Your task to perform on an android device: open a new tab in the chrome app Image 0: 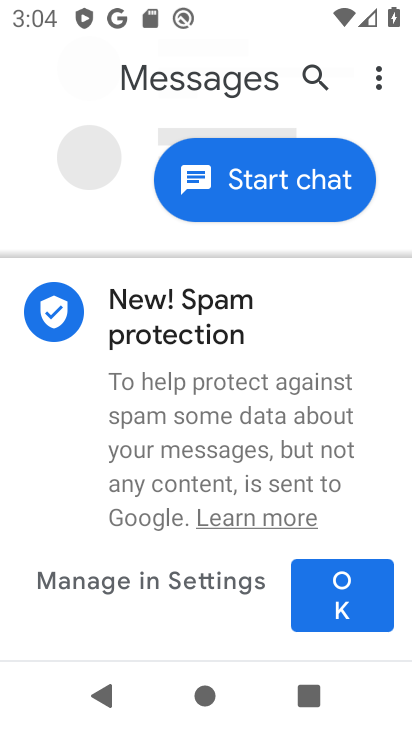
Step 0: press back button
Your task to perform on an android device: open a new tab in the chrome app Image 1: 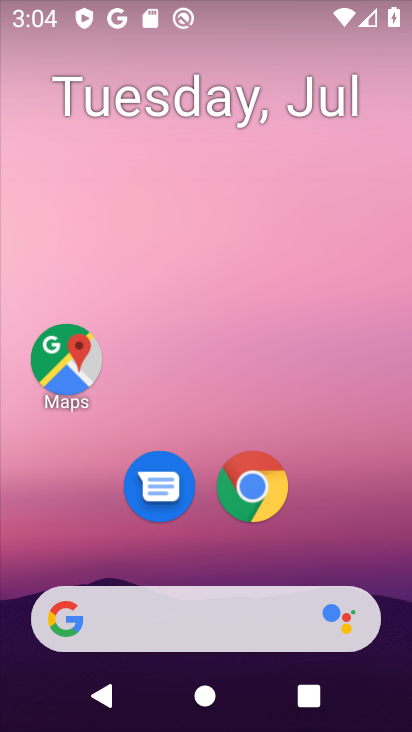
Step 1: drag from (73, 525) to (186, 124)
Your task to perform on an android device: open a new tab in the chrome app Image 2: 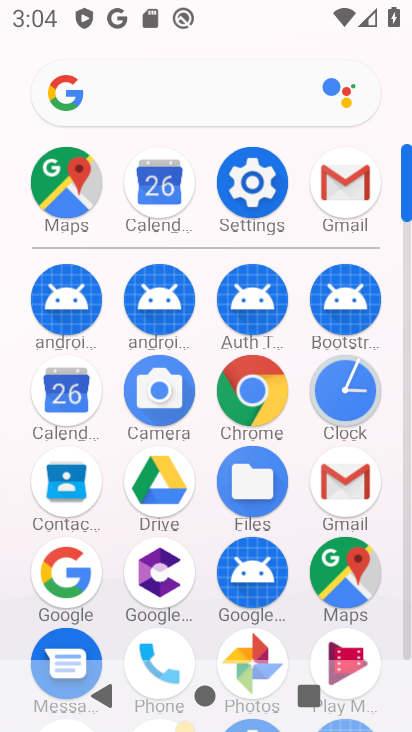
Step 2: click (270, 382)
Your task to perform on an android device: open a new tab in the chrome app Image 3: 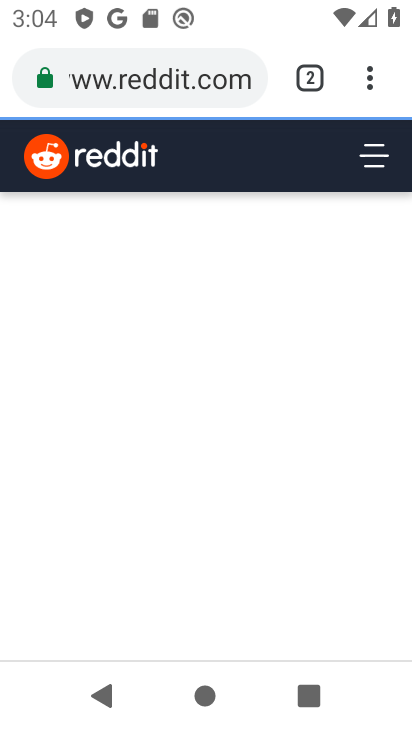
Step 3: click (313, 81)
Your task to perform on an android device: open a new tab in the chrome app Image 4: 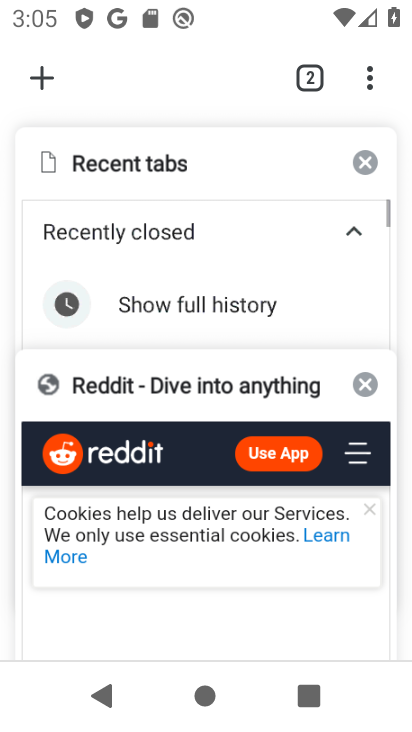
Step 4: click (48, 68)
Your task to perform on an android device: open a new tab in the chrome app Image 5: 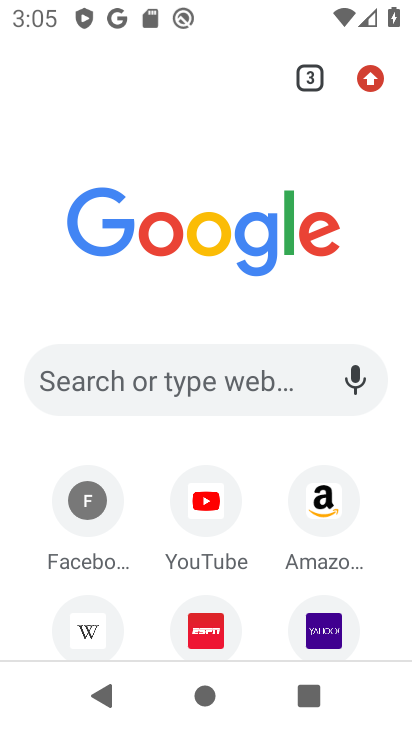
Step 5: task complete